Your task to perform on an android device: Open network settings Image 0: 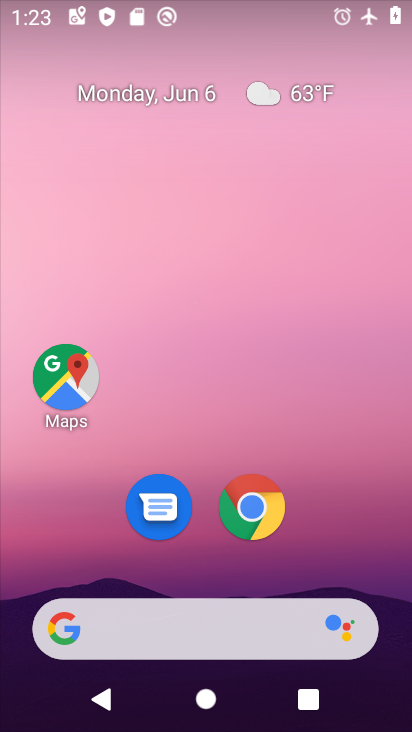
Step 0: drag from (338, 540) to (266, 9)
Your task to perform on an android device: Open network settings Image 1: 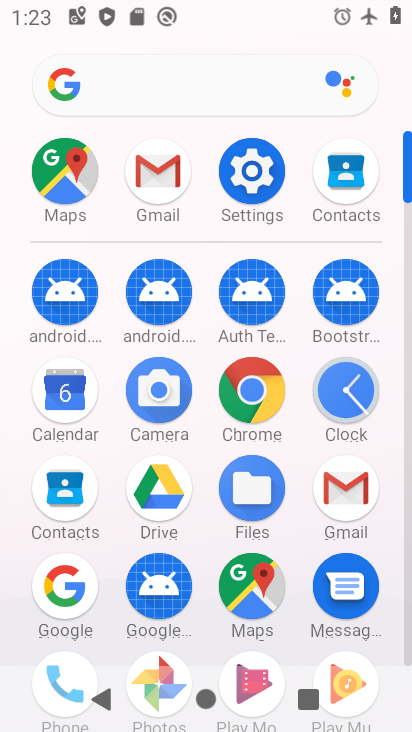
Step 1: click (251, 170)
Your task to perform on an android device: Open network settings Image 2: 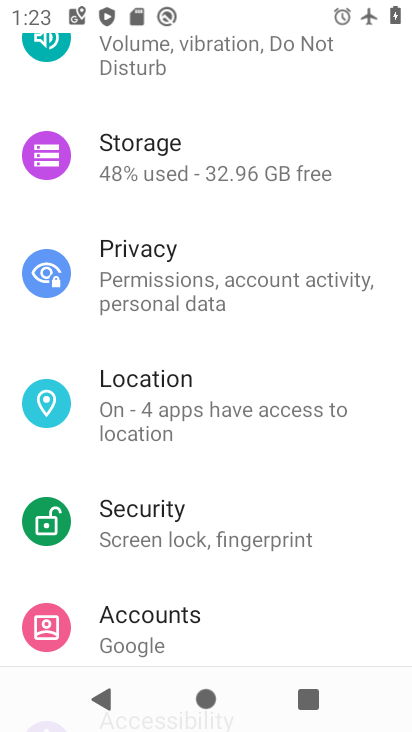
Step 2: drag from (250, 239) to (269, 599)
Your task to perform on an android device: Open network settings Image 3: 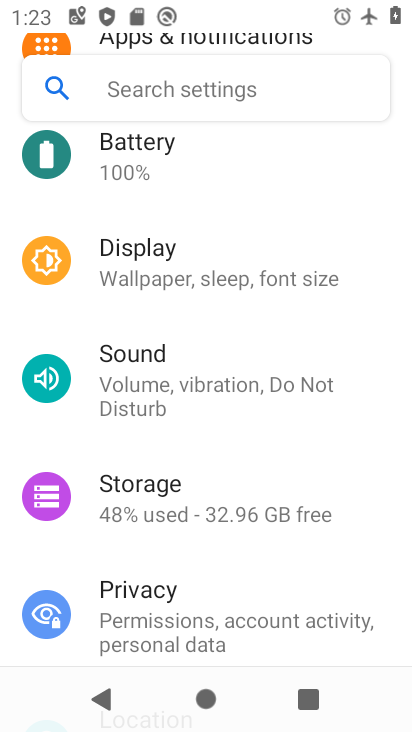
Step 3: drag from (240, 219) to (223, 634)
Your task to perform on an android device: Open network settings Image 4: 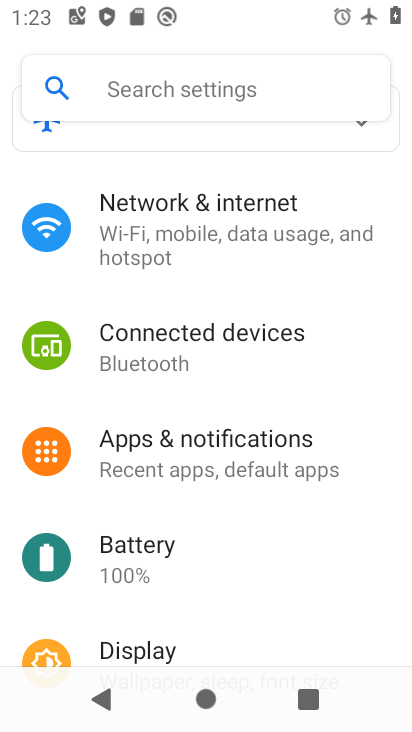
Step 4: click (250, 237)
Your task to perform on an android device: Open network settings Image 5: 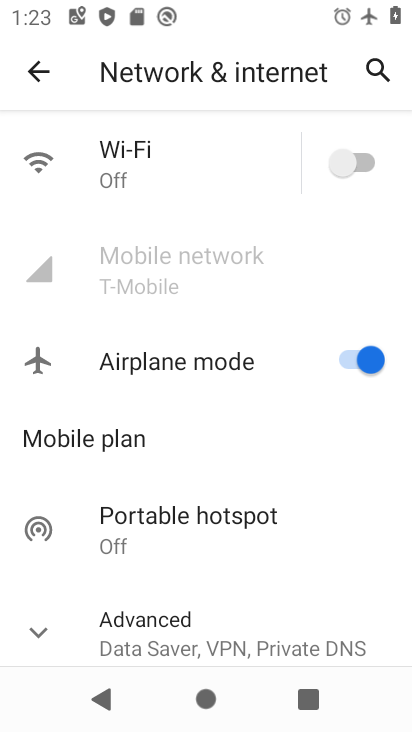
Step 5: task complete